Your task to perform on an android device: toggle improve location accuracy Image 0: 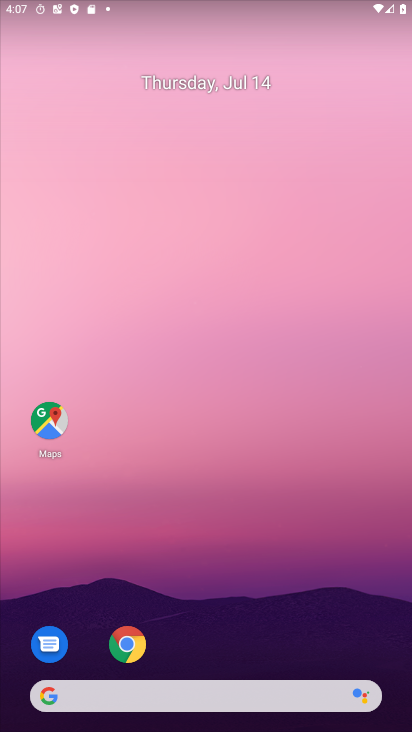
Step 0: drag from (221, 488) to (302, 60)
Your task to perform on an android device: toggle improve location accuracy Image 1: 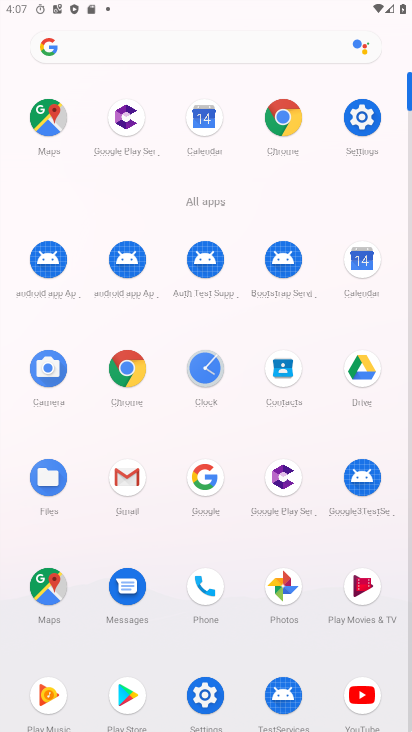
Step 1: click (375, 123)
Your task to perform on an android device: toggle improve location accuracy Image 2: 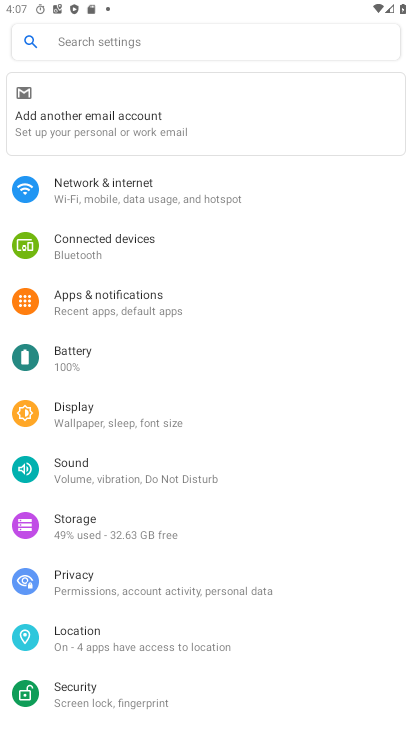
Step 2: click (109, 633)
Your task to perform on an android device: toggle improve location accuracy Image 3: 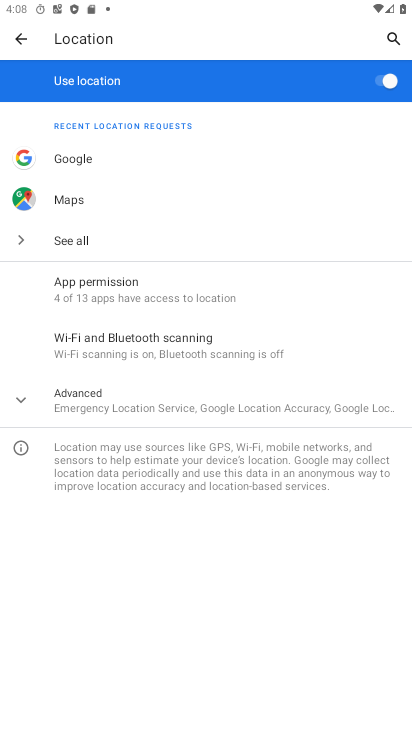
Step 3: click (101, 400)
Your task to perform on an android device: toggle improve location accuracy Image 4: 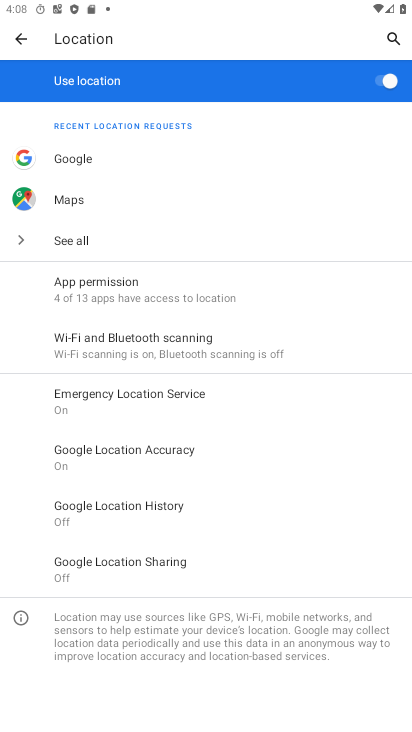
Step 4: click (141, 454)
Your task to perform on an android device: toggle improve location accuracy Image 5: 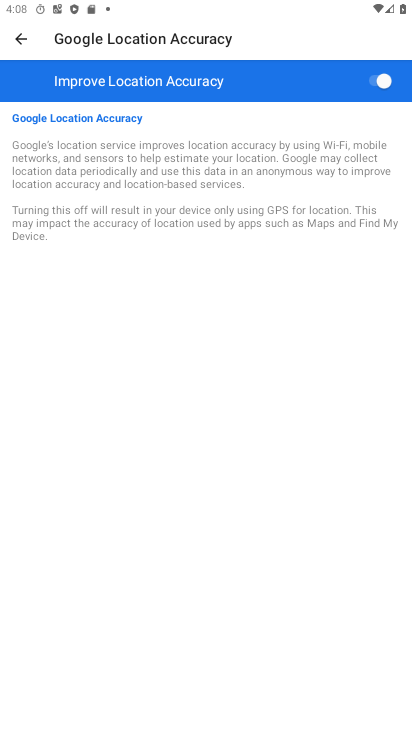
Step 5: click (393, 75)
Your task to perform on an android device: toggle improve location accuracy Image 6: 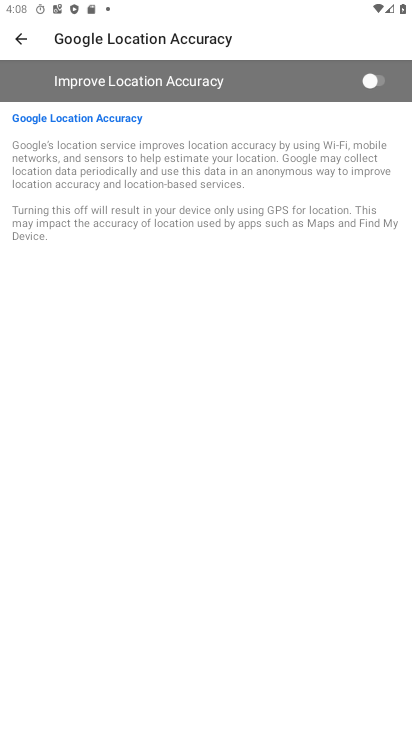
Step 6: task complete